Your task to perform on an android device: see tabs open on other devices in the chrome app Image 0: 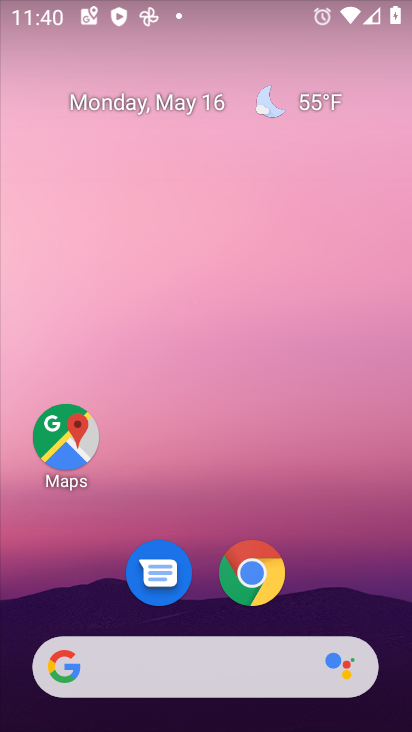
Step 0: click (267, 574)
Your task to perform on an android device: see tabs open on other devices in the chrome app Image 1: 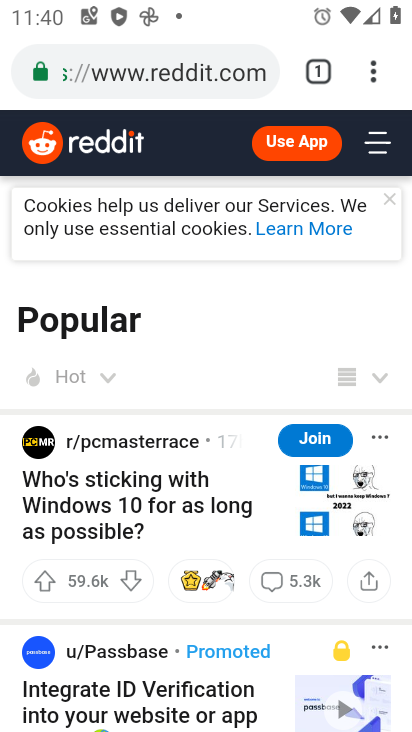
Step 1: click (379, 66)
Your task to perform on an android device: see tabs open on other devices in the chrome app Image 2: 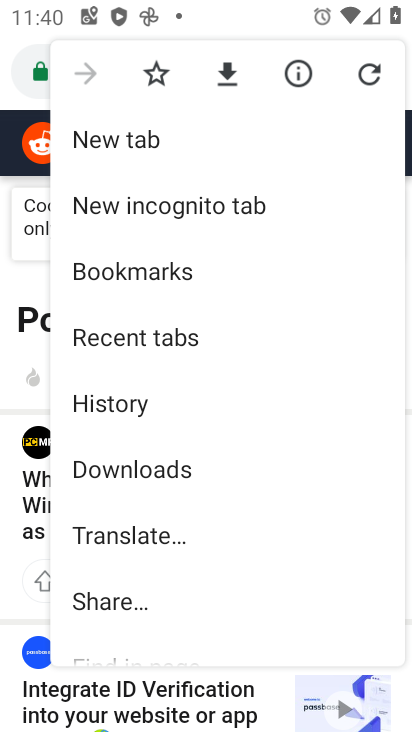
Step 2: click (161, 342)
Your task to perform on an android device: see tabs open on other devices in the chrome app Image 3: 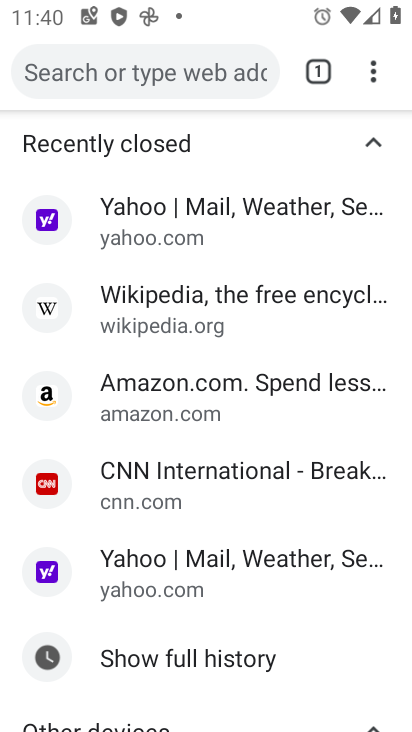
Step 3: task complete